Your task to perform on an android device: manage bookmarks in the chrome app Image 0: 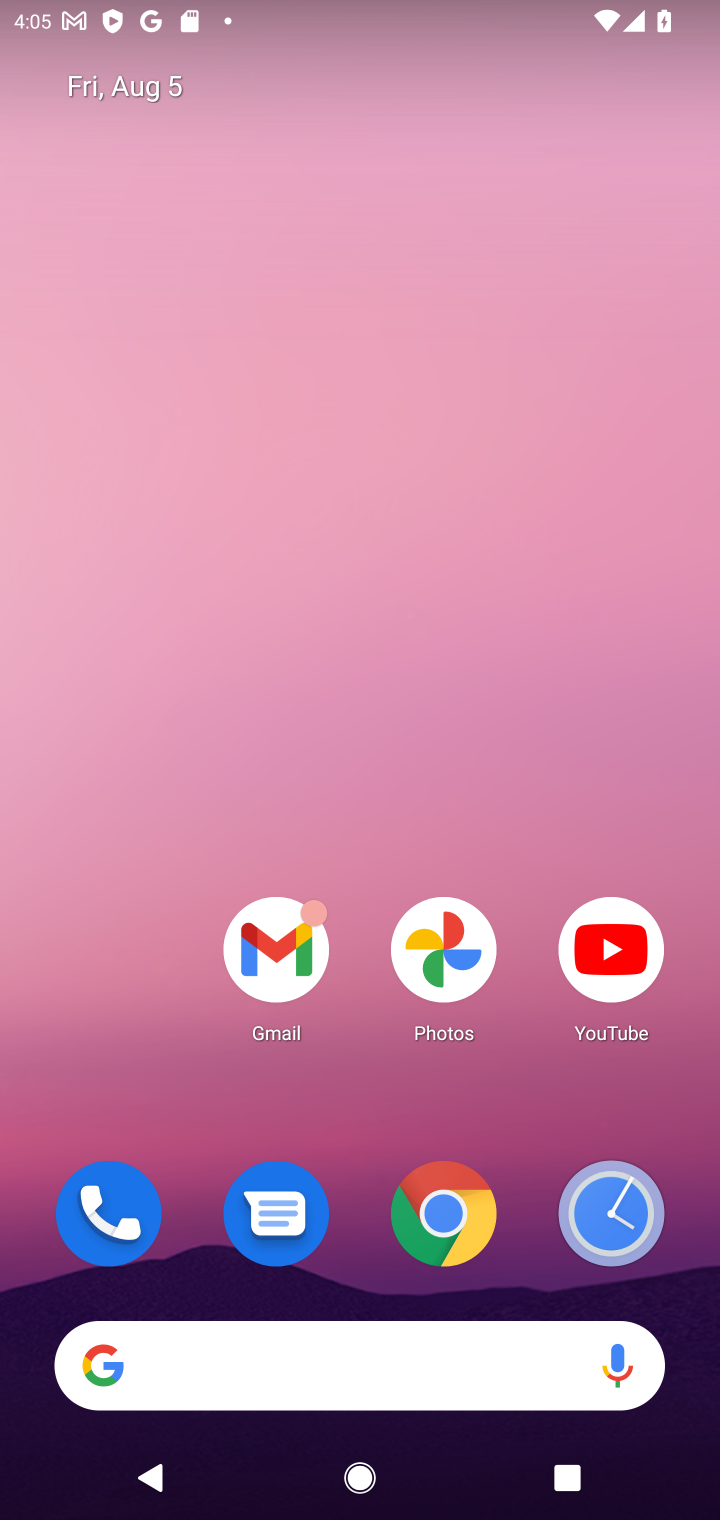
Step 0: click (437, 1243)
Your task to perform on an android device: manage bookmarks in the chrome app Image 1: 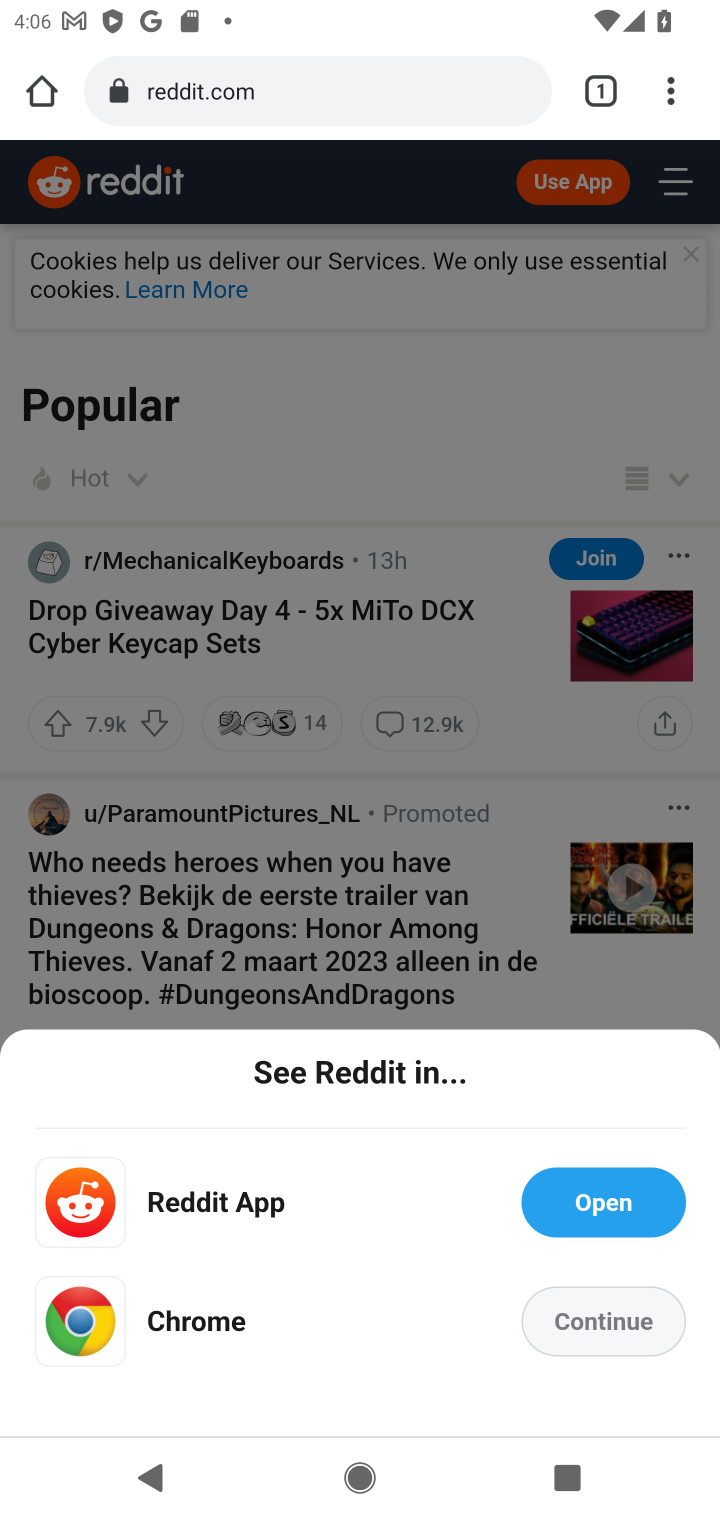
Step 1: click (660, 94)
Your task to perform on an android device: manage bookmarks in the chrome app Image 2: 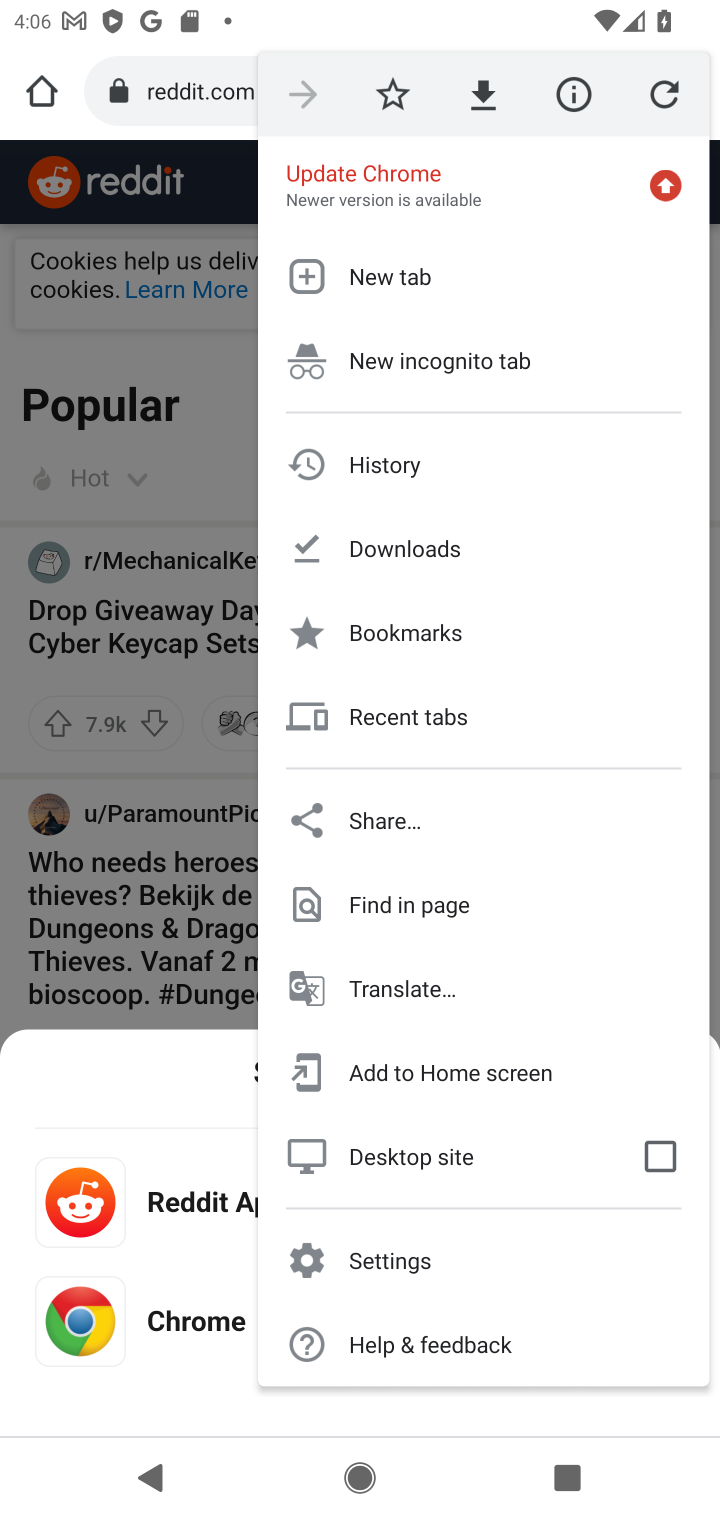
Step 2: click (438, 643)
Your task to perform on an android device: manage bookmarks in the chrome app Image 3: 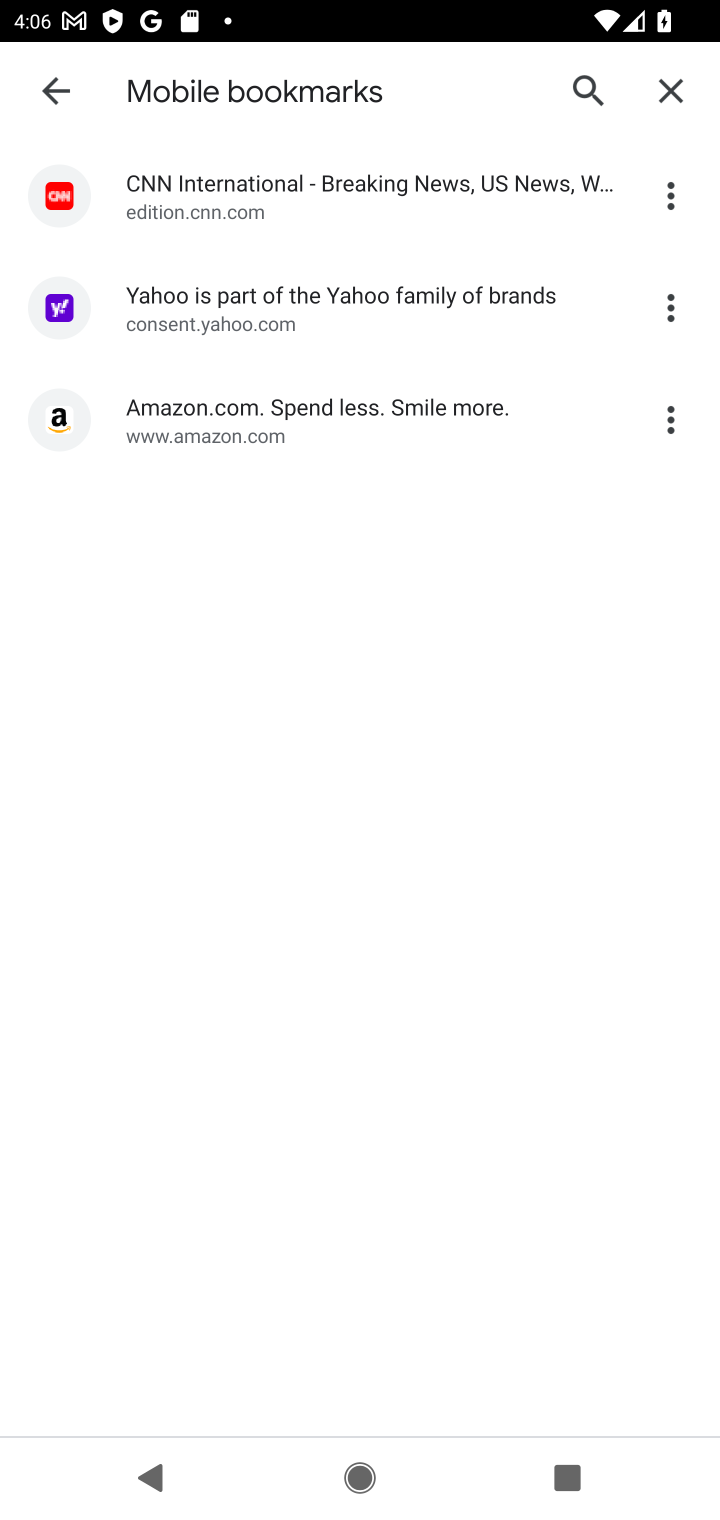
Step 3: task complete